Your task to perform on an android device: Open ESPN.com Image 0: 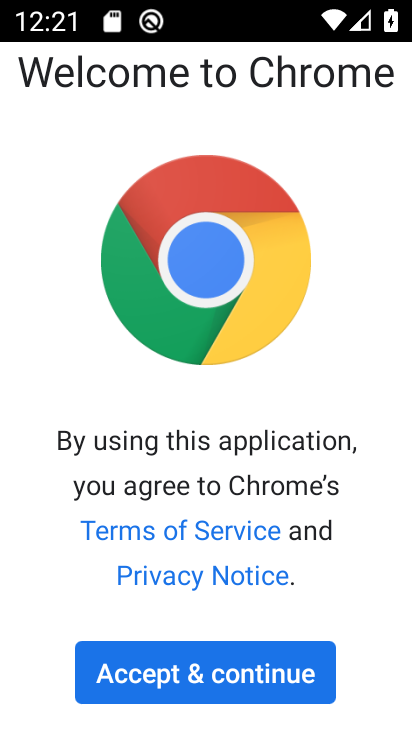
Step 0: click (231, 681)
Your task to perform on an android device: Open ESPN.com Image 1: 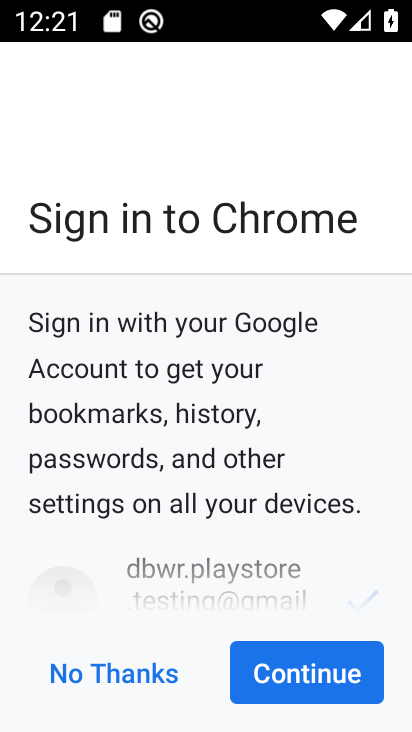
Step 1: click (335, 665)
Your task to perform on an android device: Open ESPN.com Image 2: 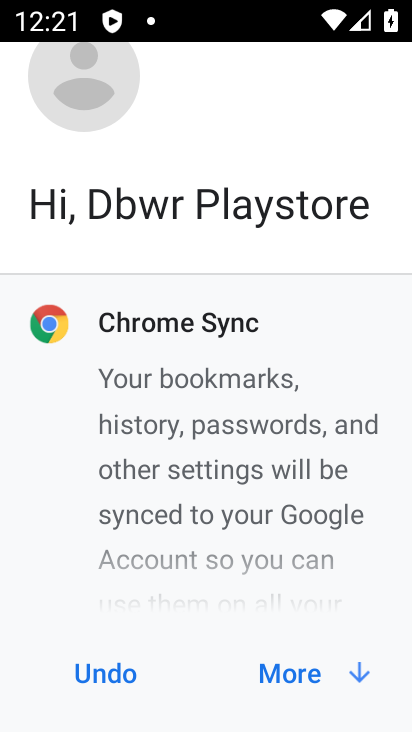
Step 2: click (333, 667)
Your task to perform on an android device: Open ESPN.com Image 3: 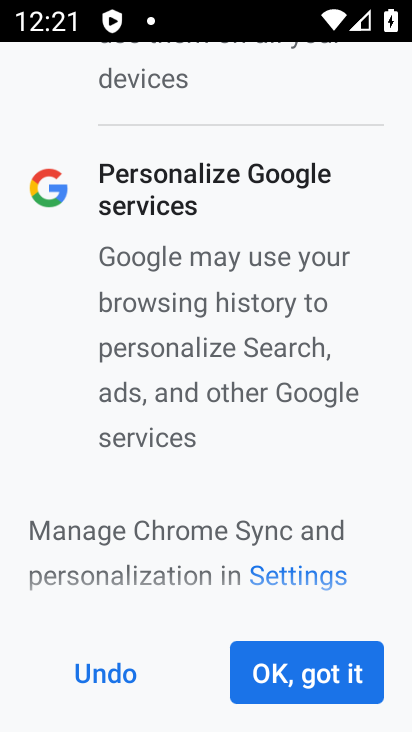
Step 3: click (334, 667)
Your task to perform on an android device: Open ESPN.com Image 4: 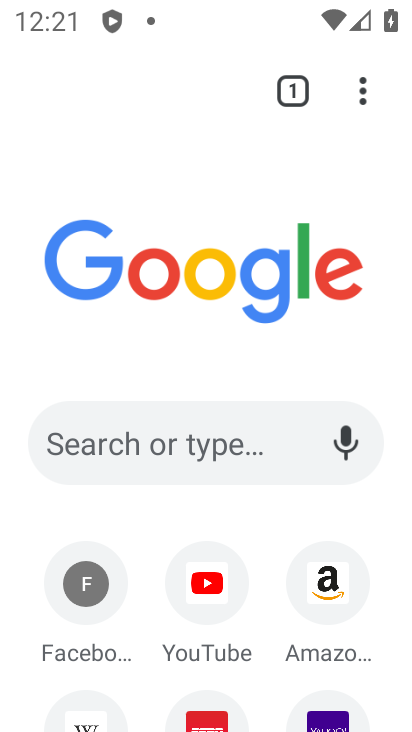
Step 4: drag from (394, 609) to (356, 147)
Your task to perform on an android device: Open ESPN.com Image 5: 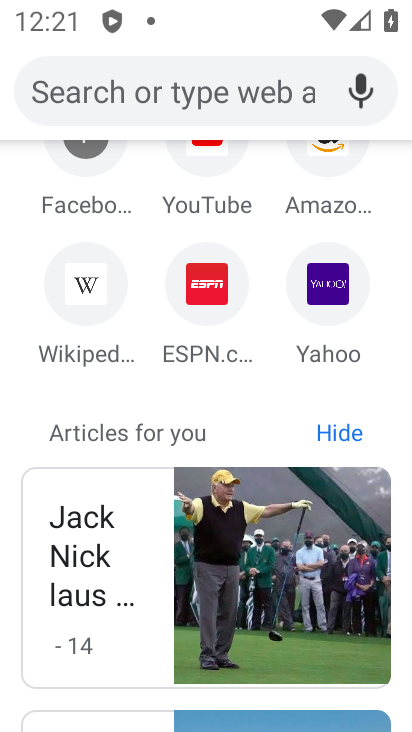
Step 5: click (198, 319)
Your task to perform on an android device: Open ESPN.com Image 6: 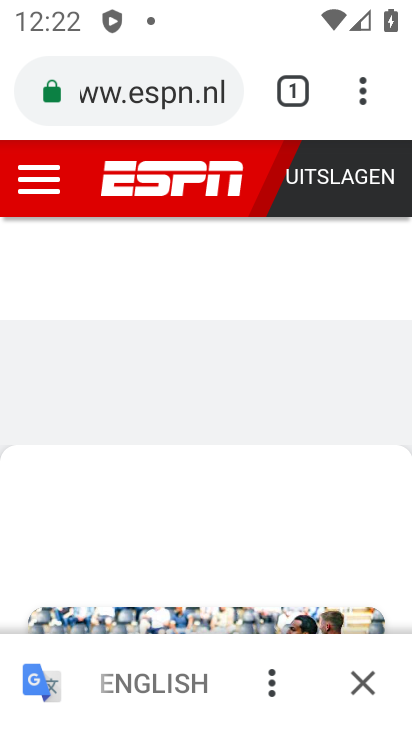
Step 6: task complete